Your task to perform on an android device: clear history in the chrome app Image 0: 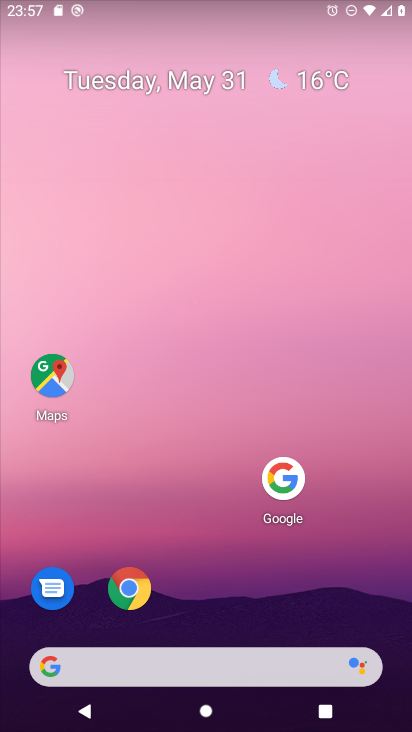
Step 0: click (134, 593)
Your task to perform on an android device: clear history in the chrome app Image 1: 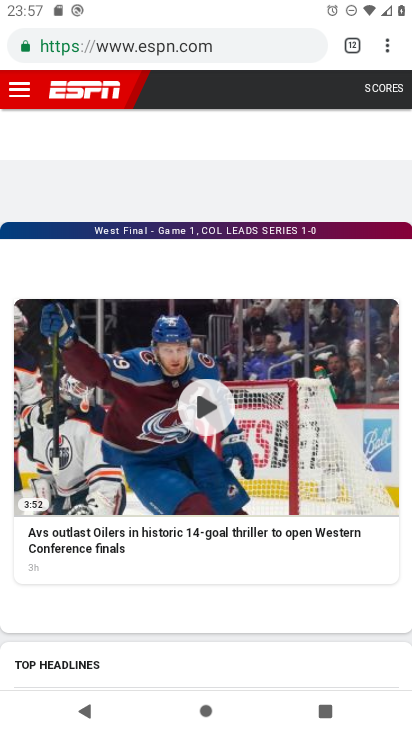
Step 1: drag from (386, 40) to (261, 256)
Your task to perform on an android device: clear history in the chrome app Image 2: 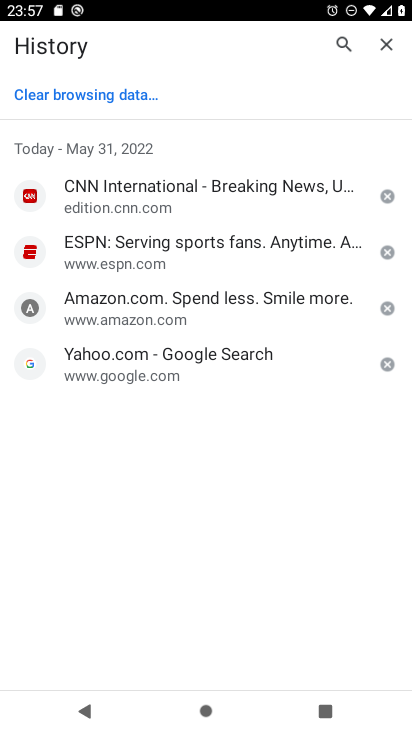
Step 2: click (108, 91)
Your task to perform on an android device: clear history in the chrome app Image 3: 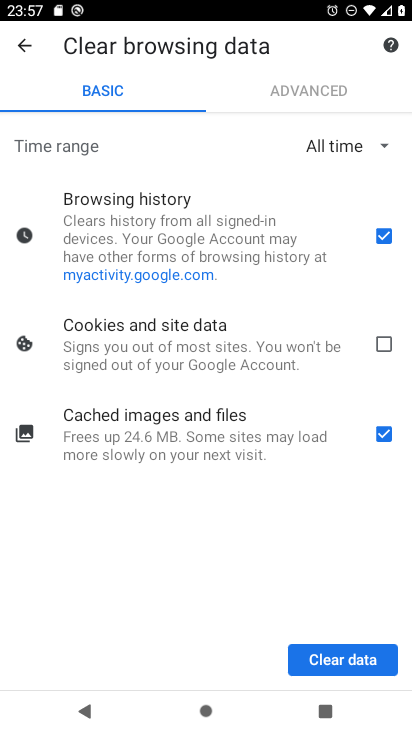
Step 3: click (391, 350)
Your task to perform on an android device: clear history in the chrome app Image 4: 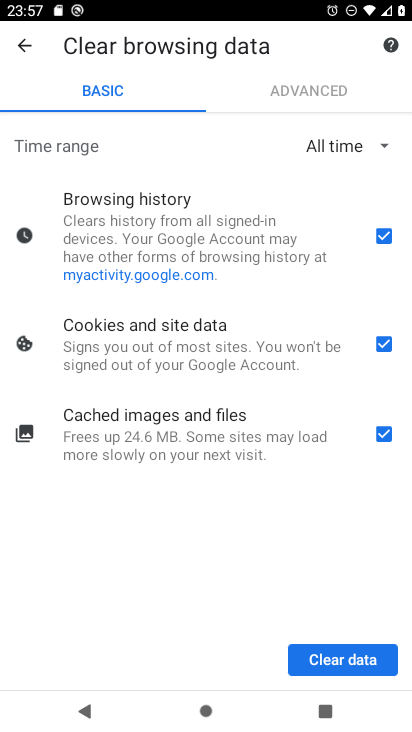
Step 4: click (351, 663)
Your task to perform on an android device: clear history in the chrome app Image 5: 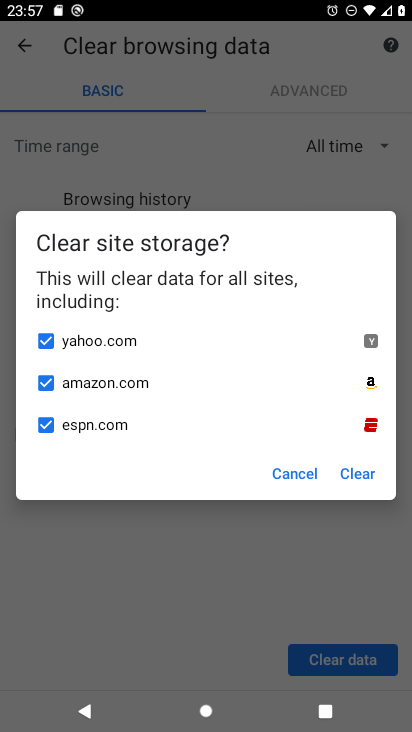
Step 5: click (363, 467)
Your task to perform on an android device: clear history in the chrome app Image 6: 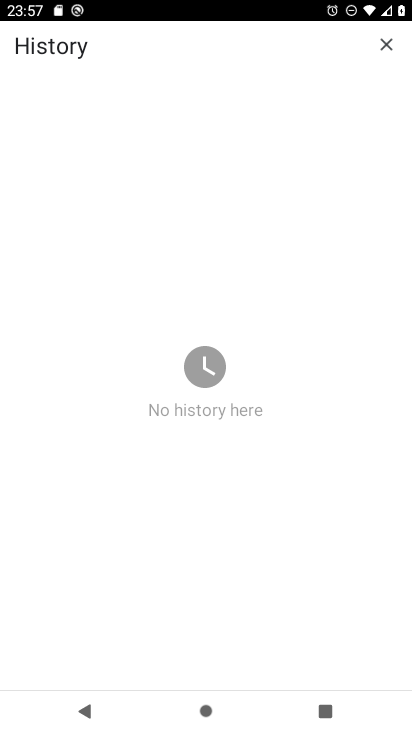
Step 6: task complete